Your task to perform on an android device: open a bookmark in the chrome app Image 0: 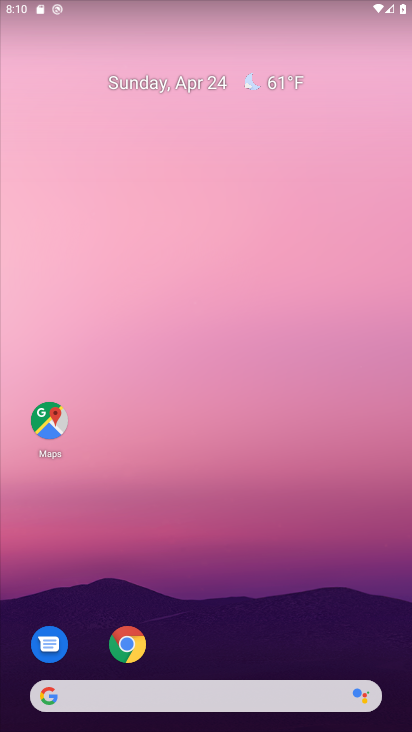
Step 0: drag from (204, 653) to (260, 46)
Your task to perform on an android device: open a bookmark in the chrome app Image 1: 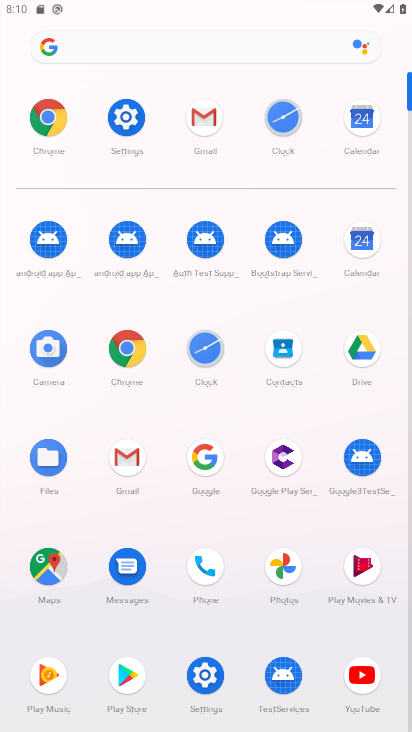
Step 1: click (128, 344)
Your task to perform on an android device: open a bookmark in the chrome app Image 2: 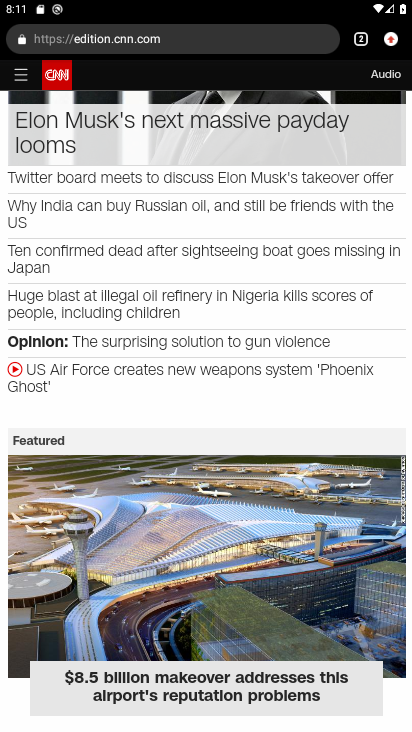
Step 2: click (389, 34)
Your task to perform on an android device: open a bookmark in the chrome app Image 3: 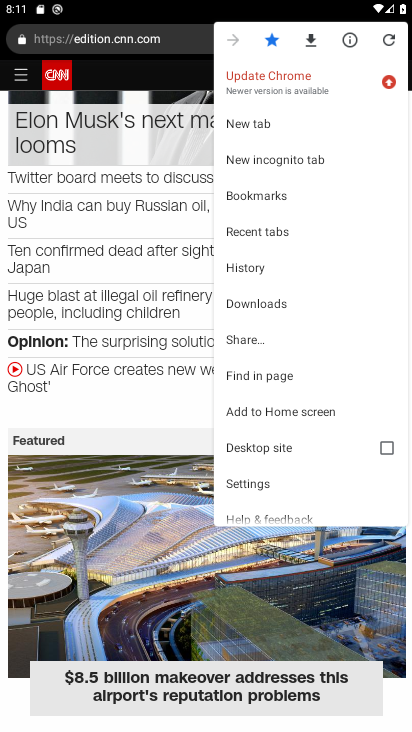
Step 3: click (285, 194)
Your task to perform on an android device: open a bookmark in the chrome app Image 4: 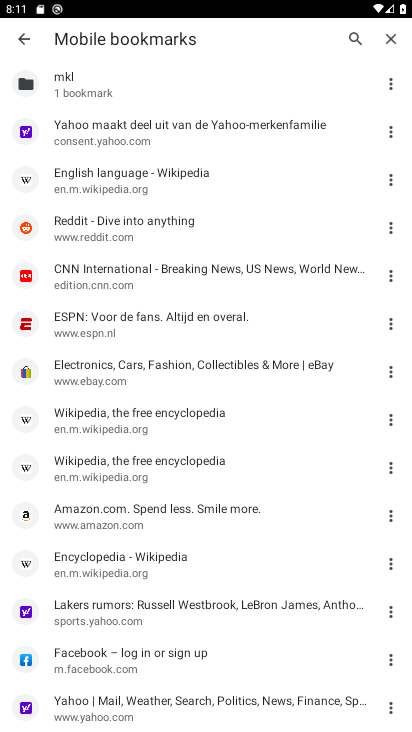
Step 4: click (100, 230)
Your task to perform on an android device: open a bookmark in the chrome app Image 5: 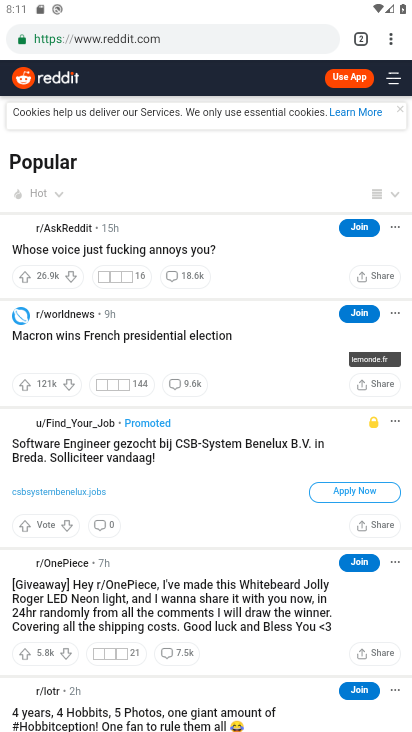
Step 5: task complete